Your task to perform on an android device: Search for usb-c on ebay.com, select the first entry, add it to the cart, then select checkout. Image 0: 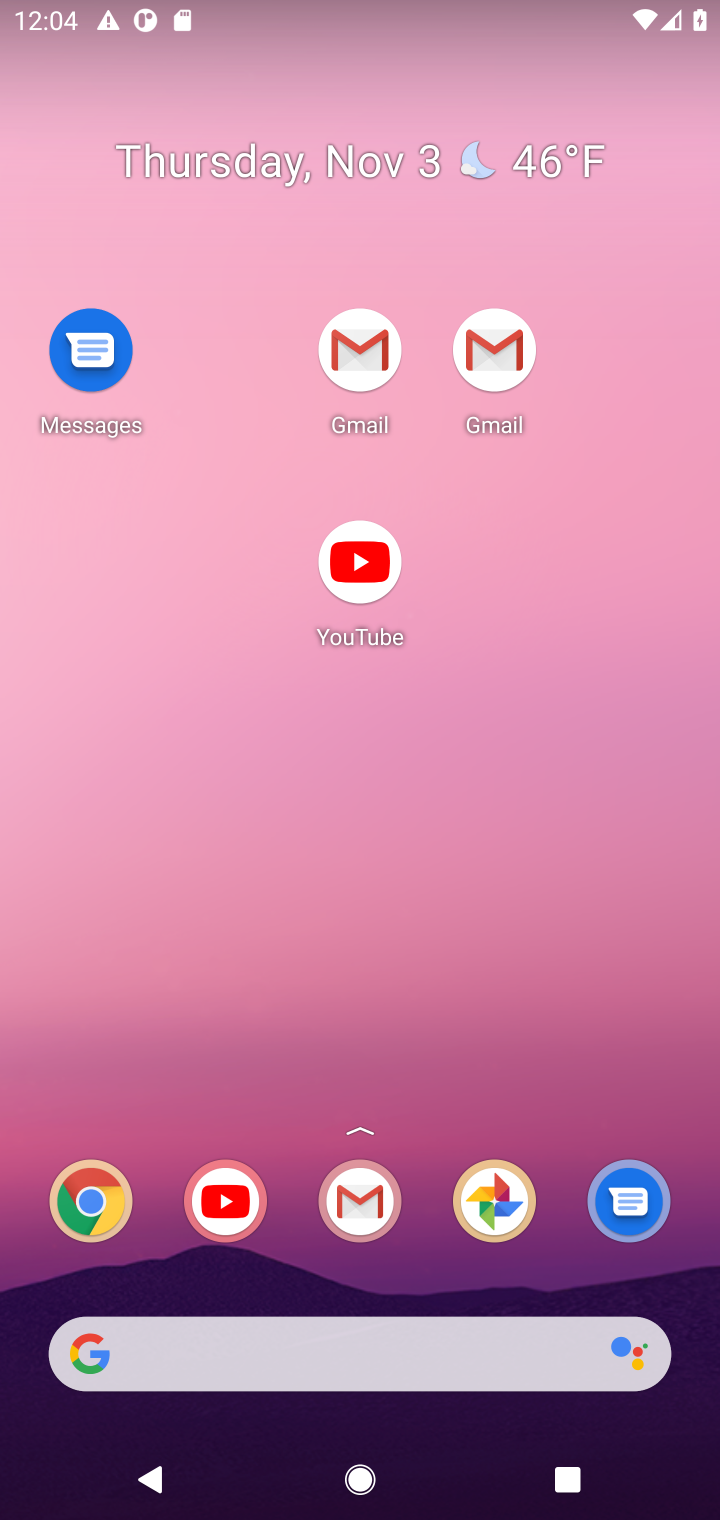
Step 0: drag from (402, 1271) to (532, 479)
Your task to perform on an android device: Search for usb-c on ebay.com, select the first entry, add it to the cart, then select checkout. Image 1: 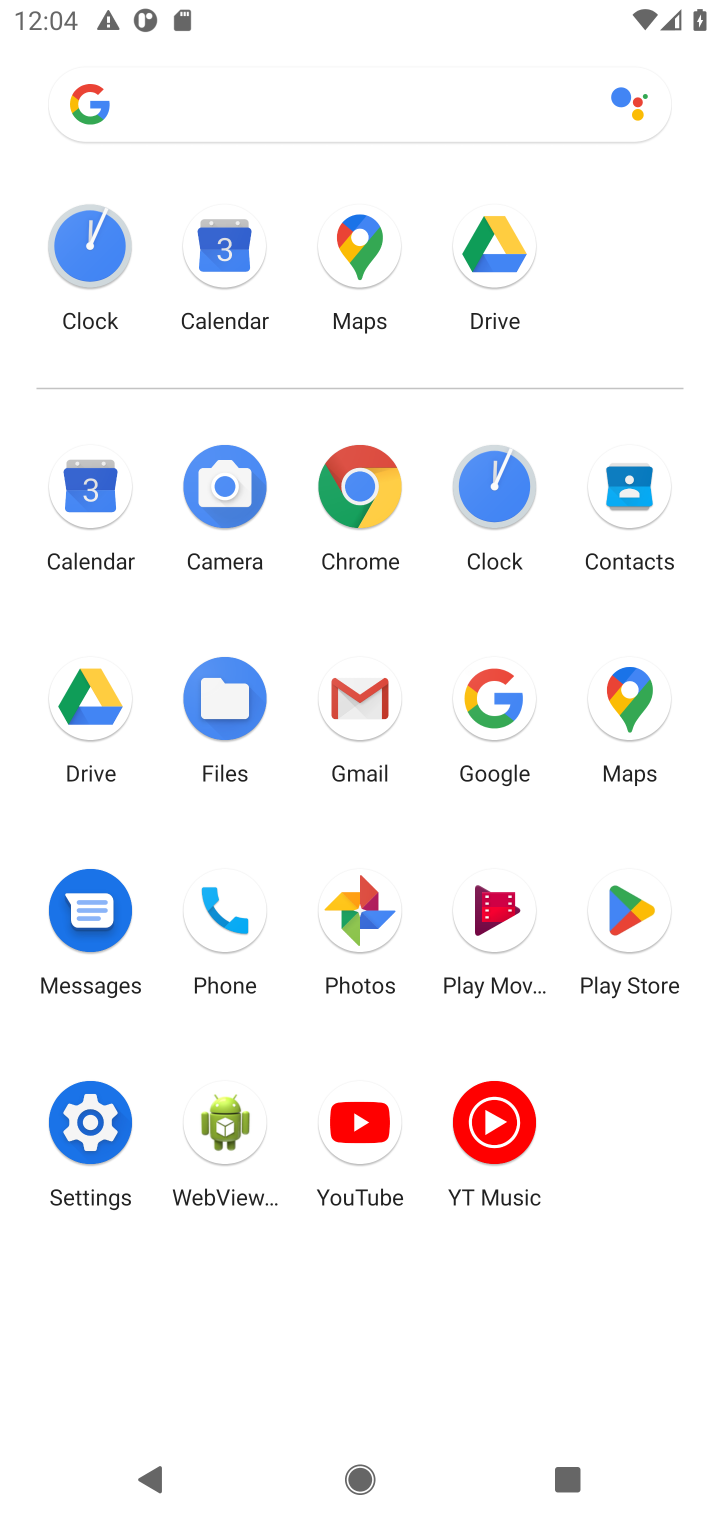
Step 1: click (365, 491)
Your task to perform on an android device: Search for usb-c on ebay.com, select the first entry, add it to the cart, then select checkout. Image 2: 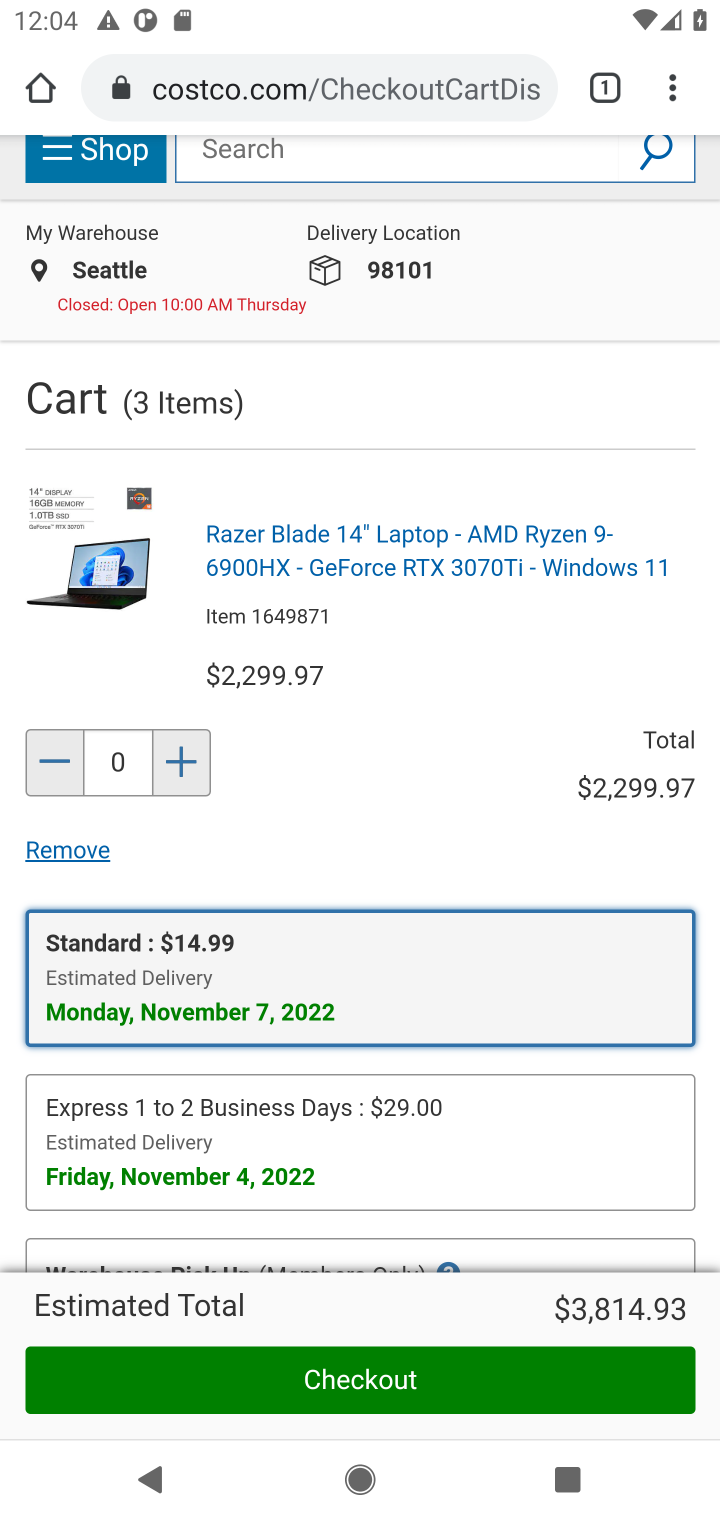
Step 2: click (430, 95)
Your task to perform on an android device: Search for usb-c on ebay.com, select the first entry, add it to the cart, then select checkout. Image 3: 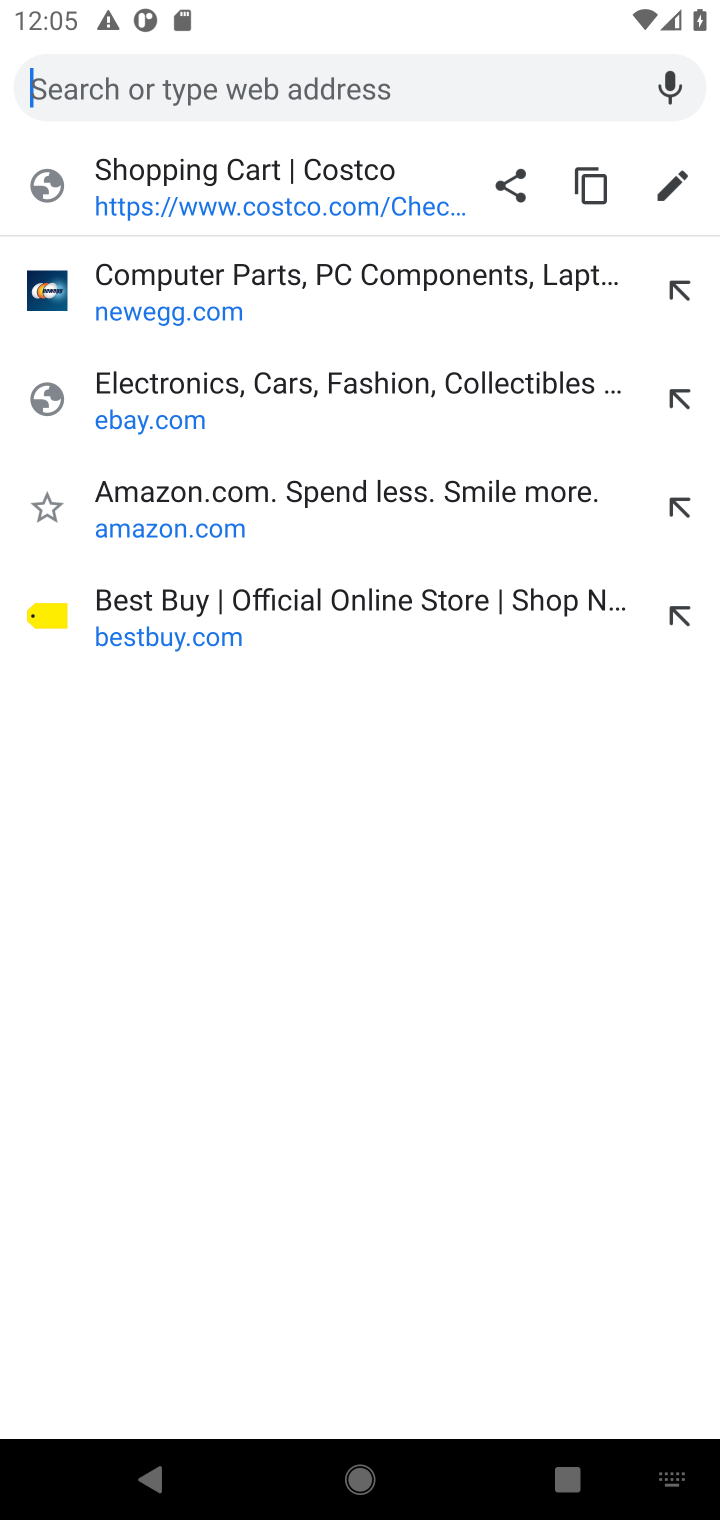
Step 3: type "ebay.com"
Your task to perform on an android device: Search for usb-c on ebay.com, select the first entry, add it to the cart, then select checkout. Image 4: 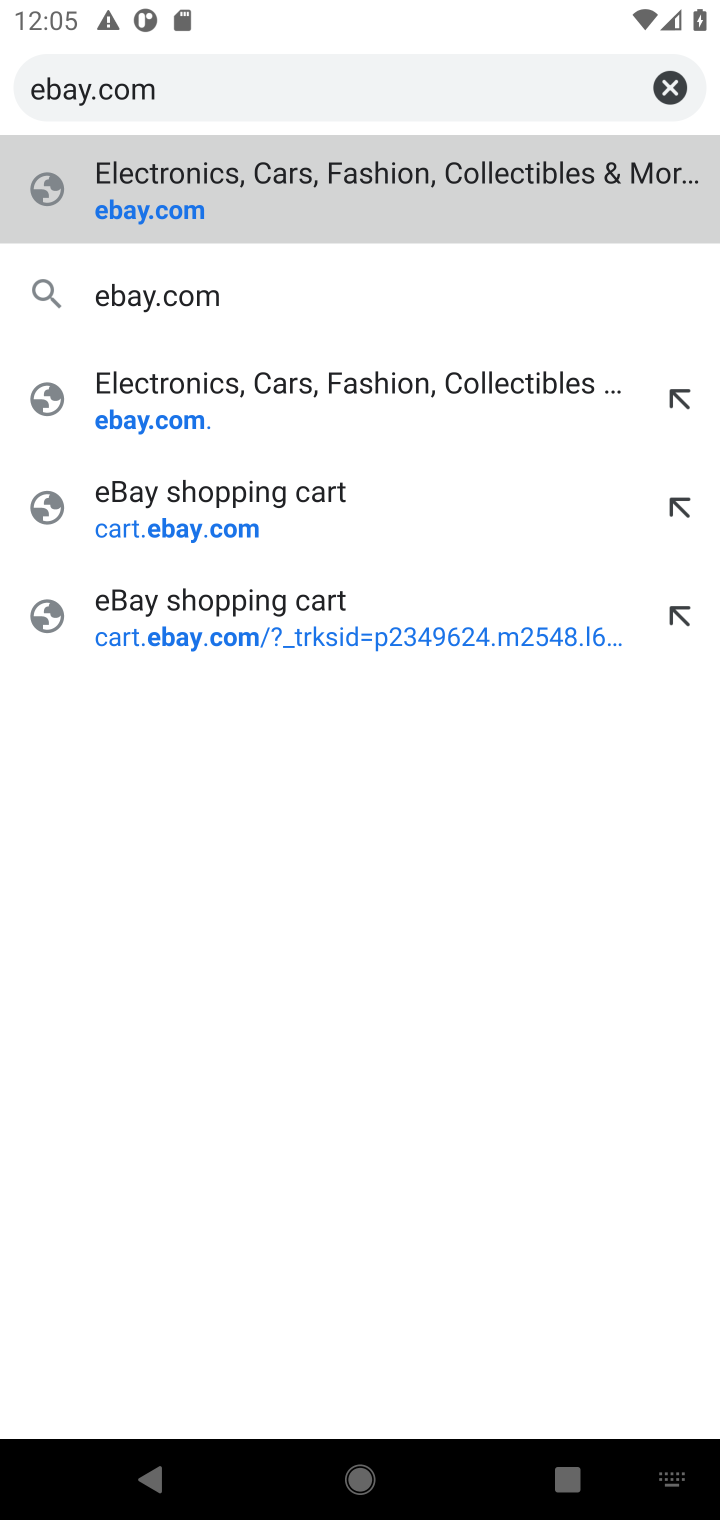
Step 4: press enter
Your task to perform on an android device: Search for usb-c on ebay.com, select the first entry, add it to the cart, then select checkout. Image 5: 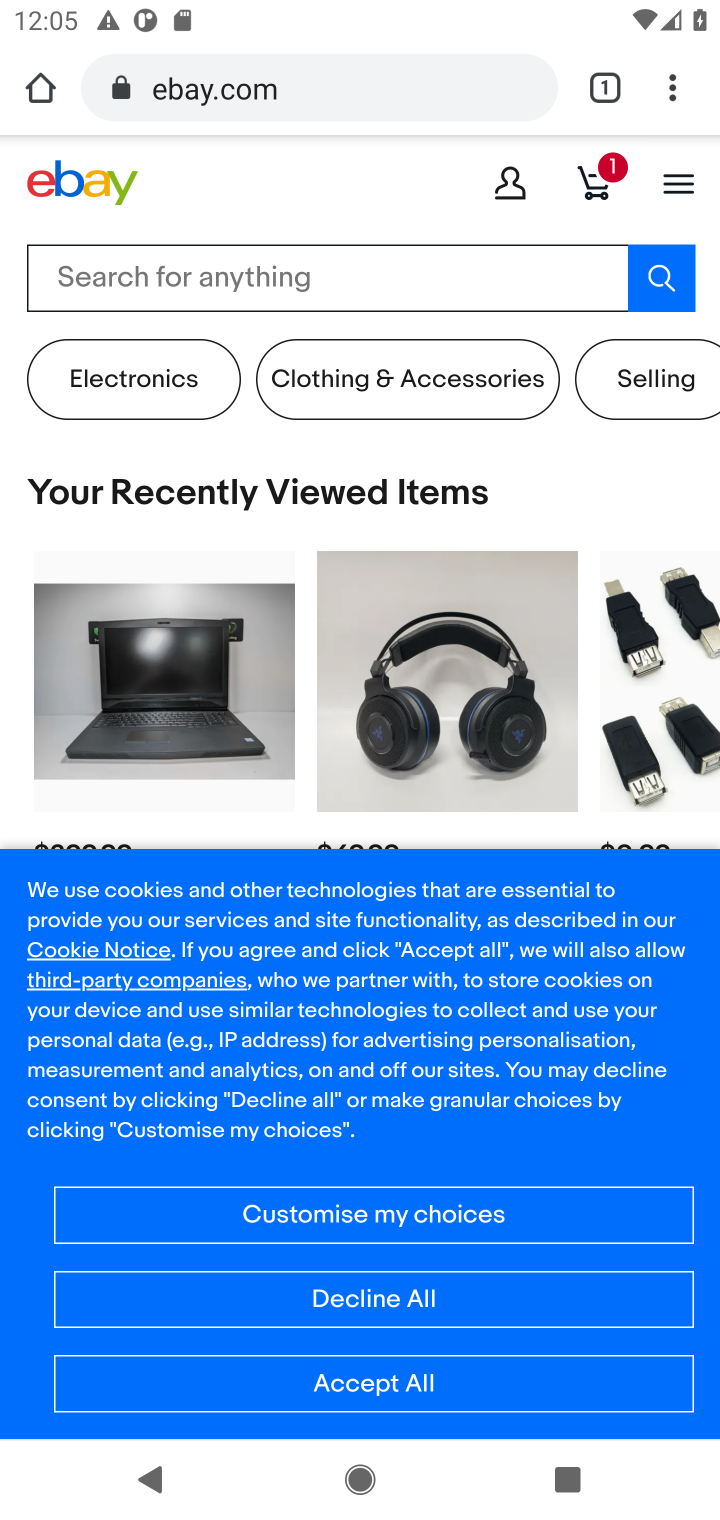
Step 5: click (445, 271)
Your task to perform on an android device: Search for usb-c on ebay.com, select the first entry, add it to the cart, then select checkout. Image 6: 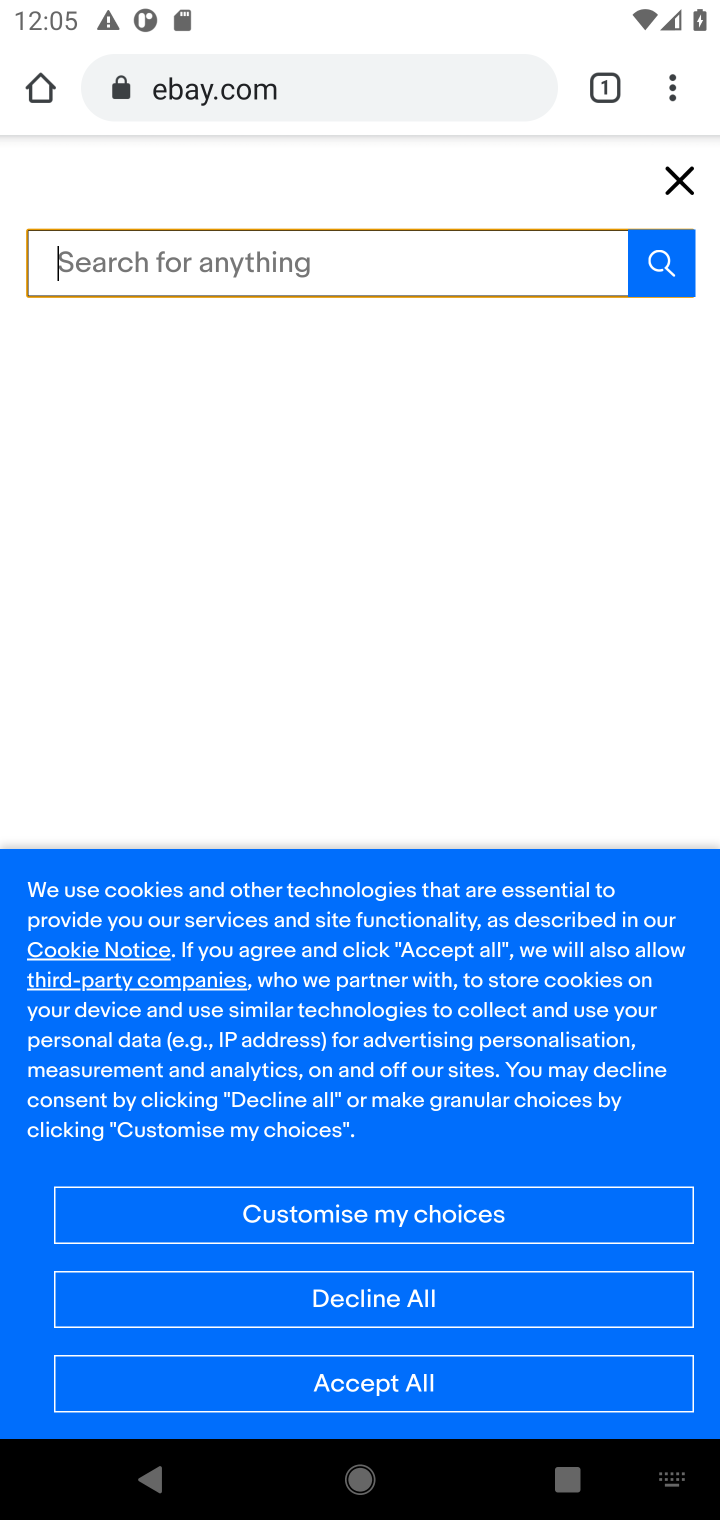
Step 6: type "usb-c"
Your task to perform on an android device: Search for usb-c on ebay.com, select the first entry, add it to the cart, then select checkout. Image 7: 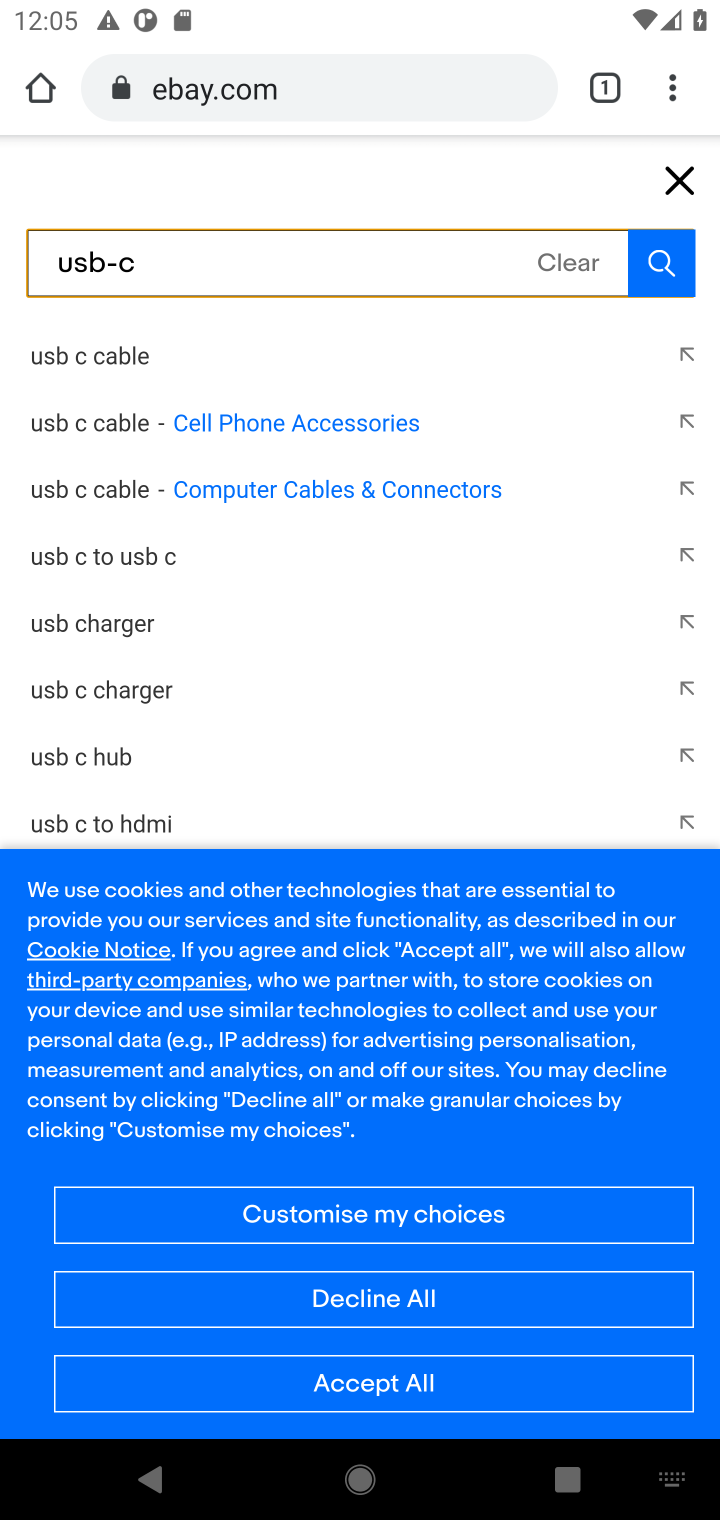
Step 7: press enter
Your task to perform on an android device: Search for usb-c on ebay.com, select the first entry, add it to the cart, then select checkout. Image 8: 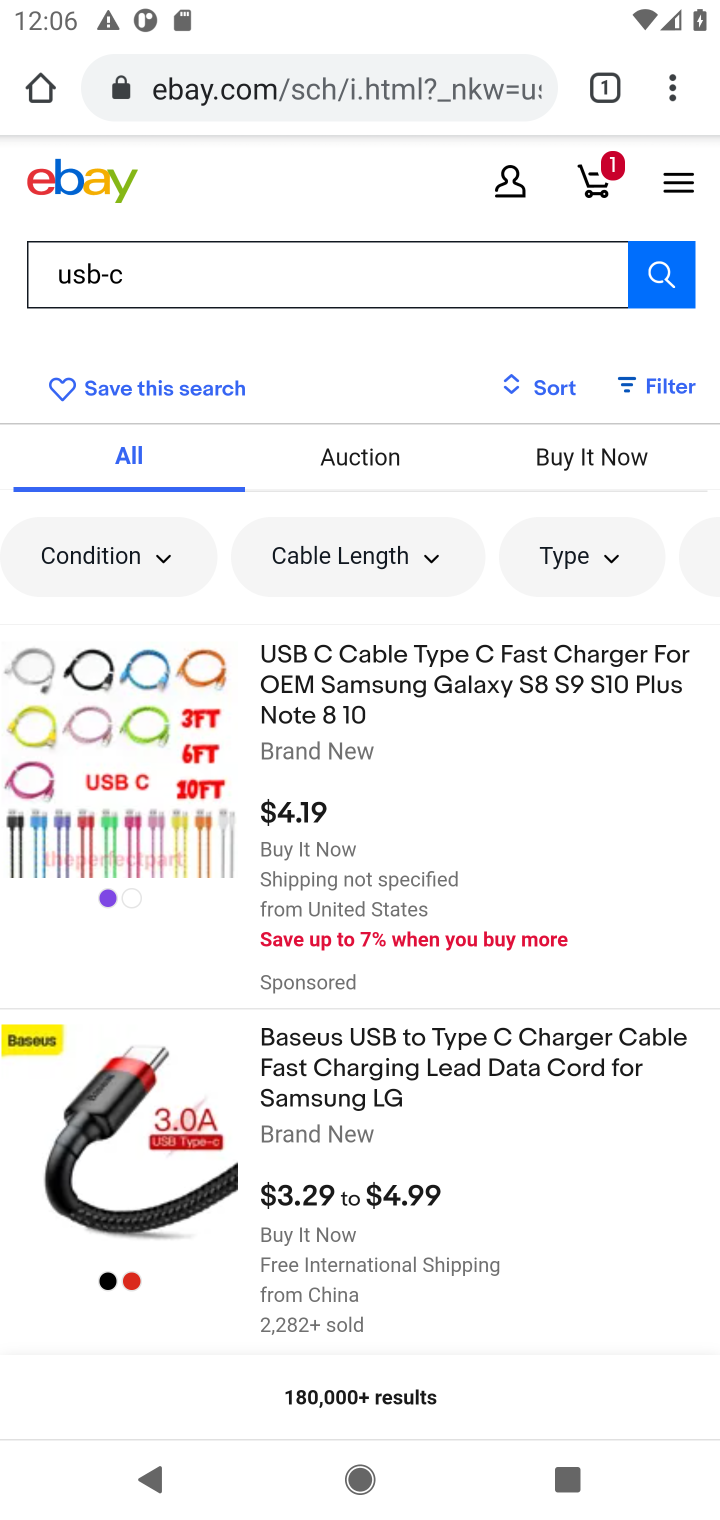
Step 8: click (388, 686)
Your task to perform on an android device: Search for usb-c on ebay.com, select the first entry, add it to the cart, then select checkout. Image 9: 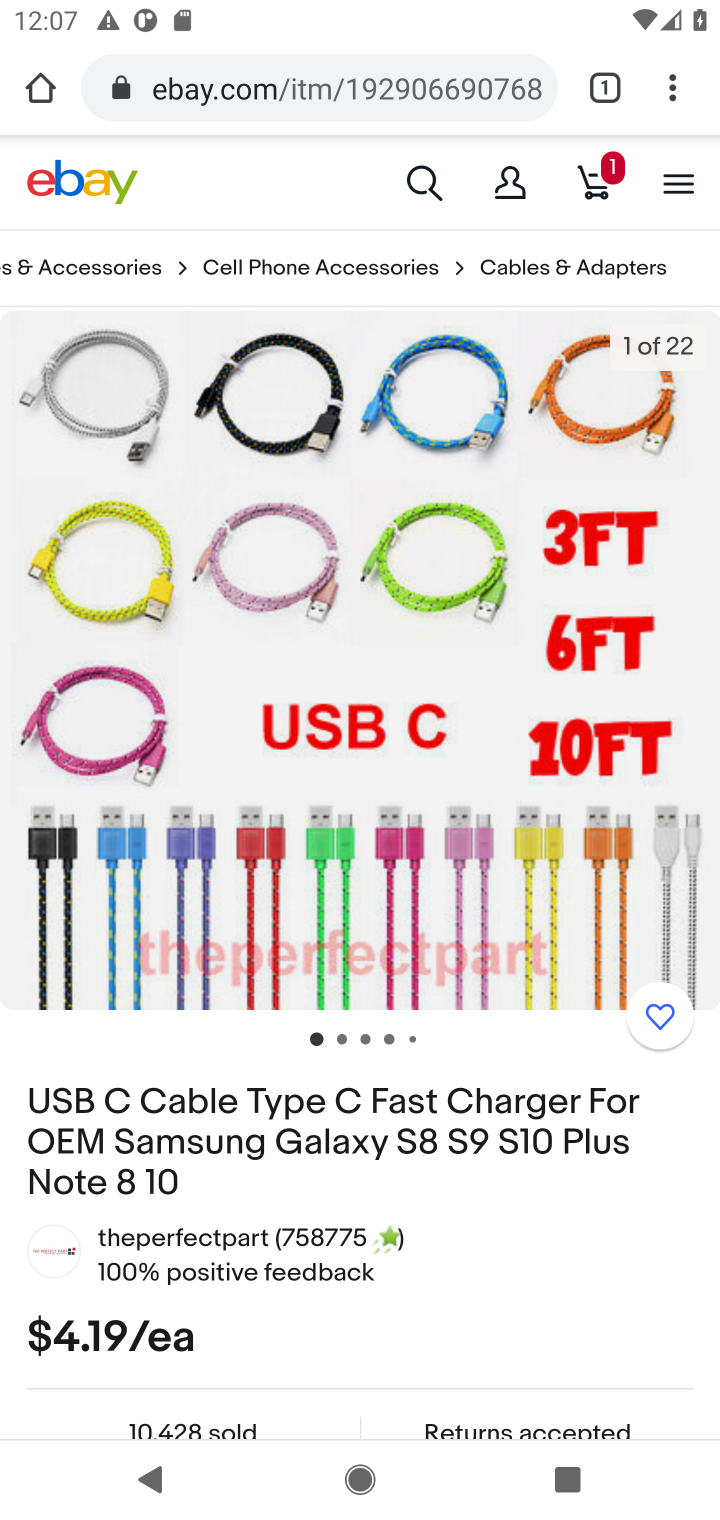
Step 9: drag from (267, 1156) to (422, 296)
Your task to perform on an android device: Search for usb-c on ebay.com, select the first entry, add it to the cart, then select checkout. Image 10: 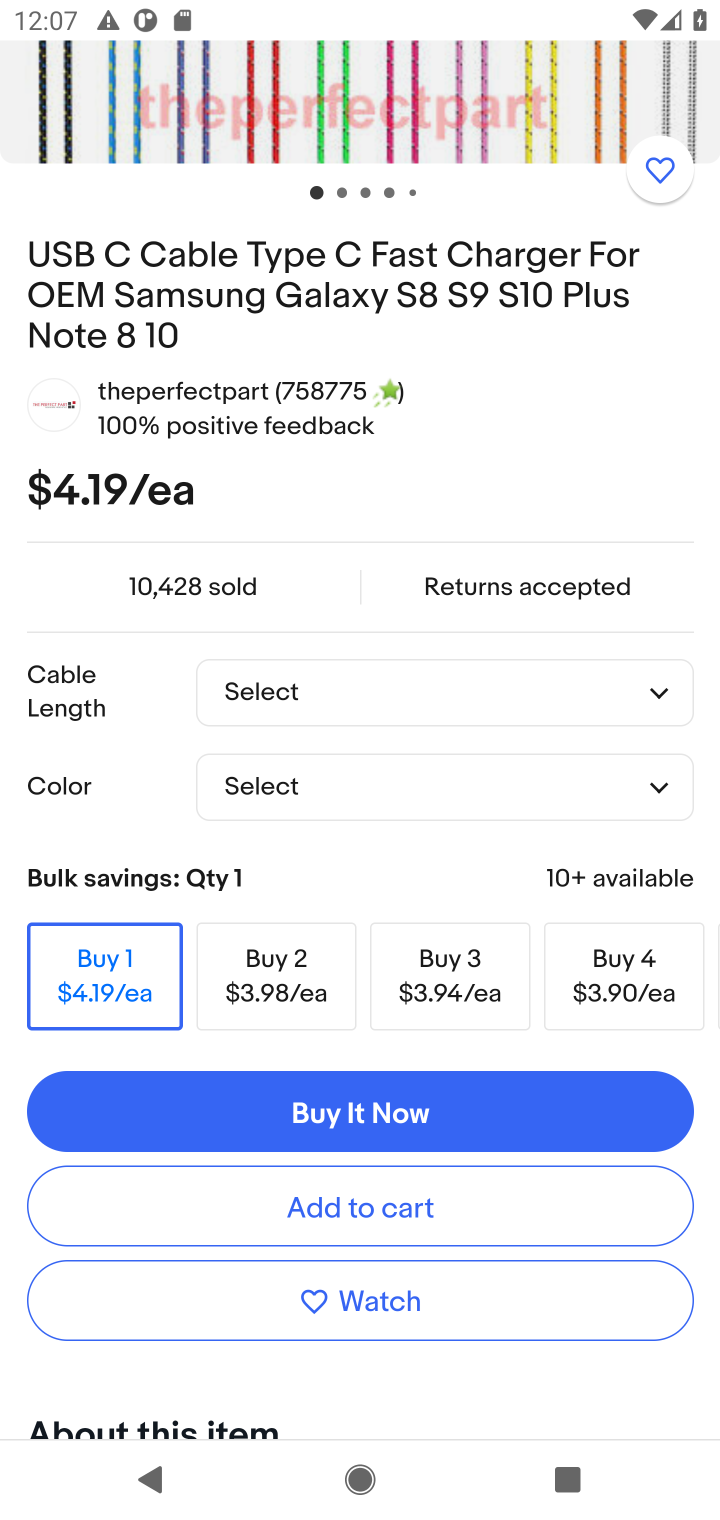
Step 10: click (546, 1220)
Your task to perform on an android device: Search for usb-c on ebay.com, select the first entry, add it to the cart, then select checkout. Image 11: 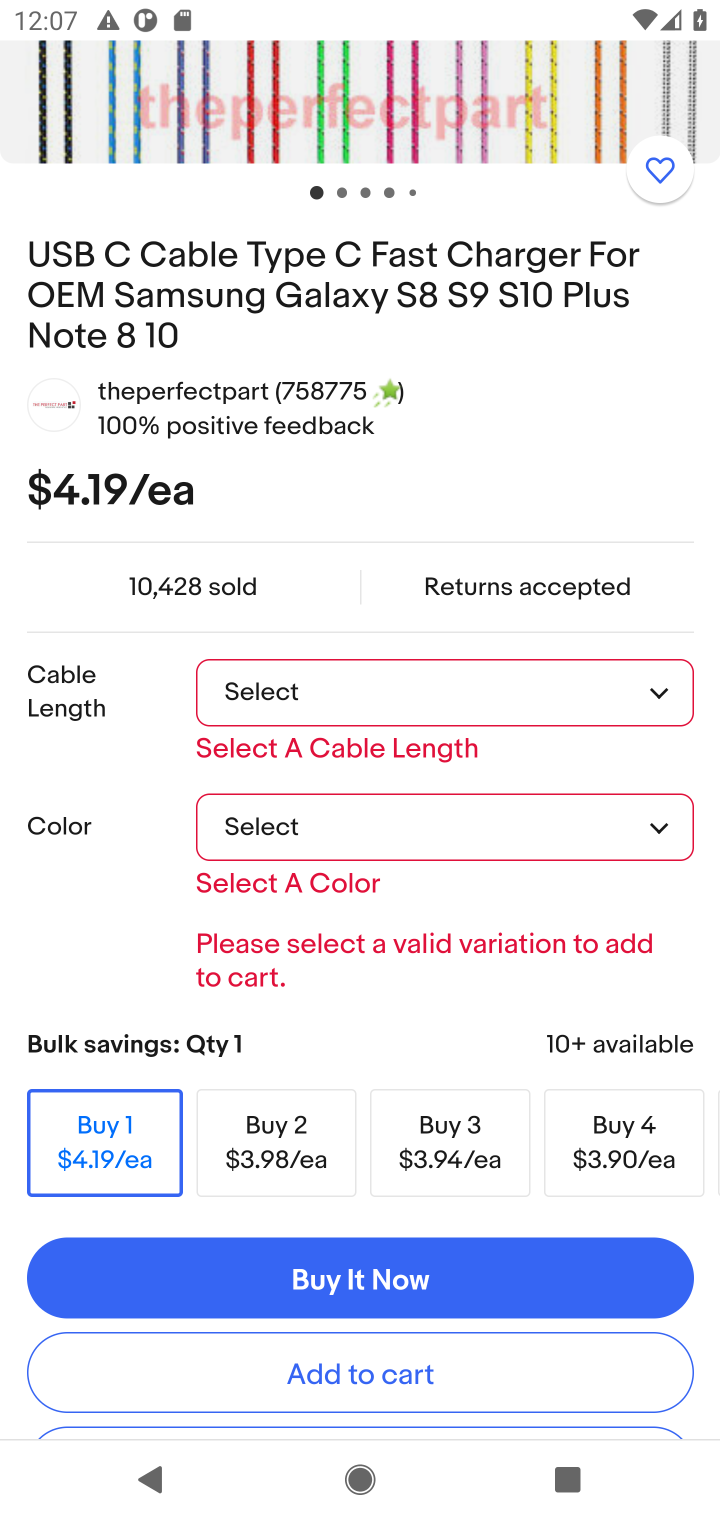
Step 11: click (350, 689)
Your task to perform on an android device: Search for usb-c on ebay.com, select the first entry, add it to the cart, then select checkout. Image 12: 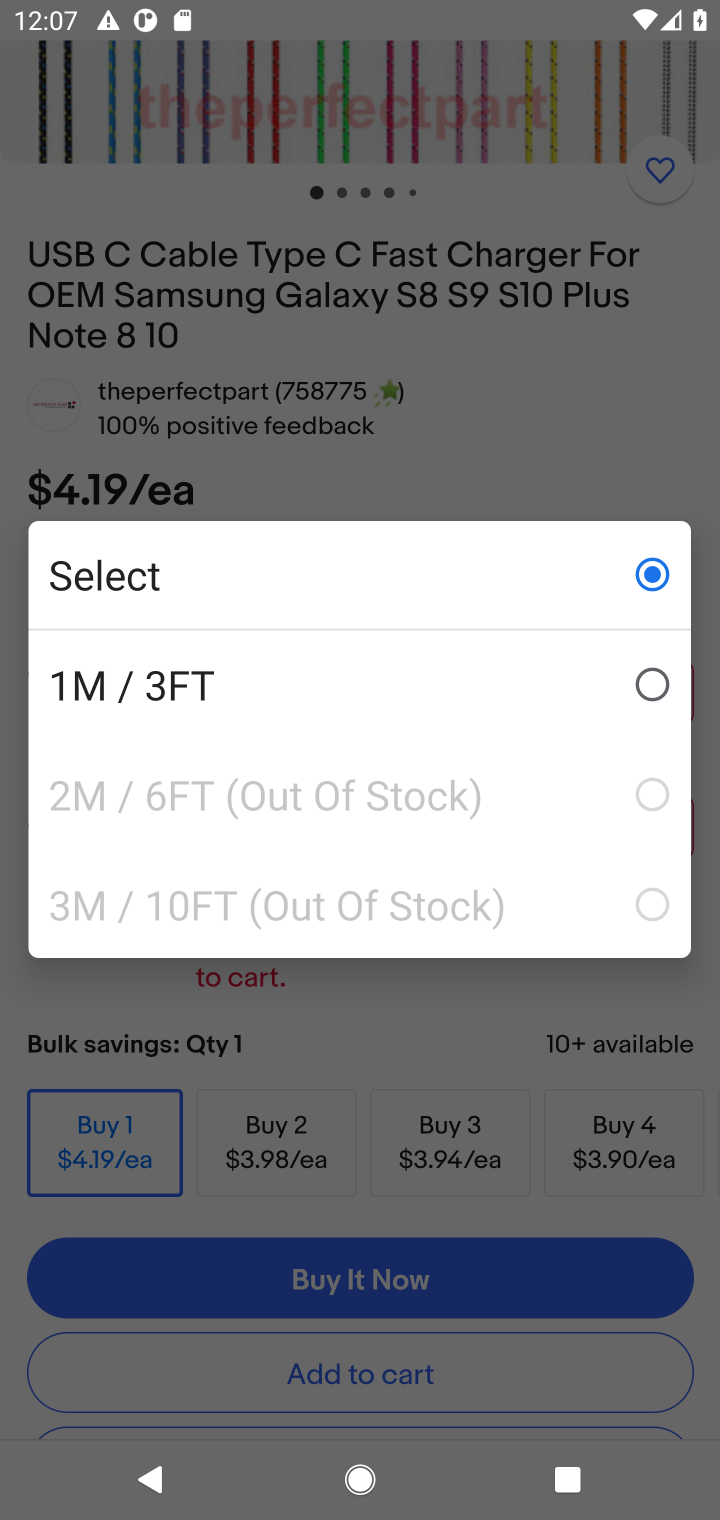
Step 12: click (350, 689)
Your task to perform on an android device: Search for usb-c on ebay.com, select the first entry, add it to the cart, then select checkout. Image 13: 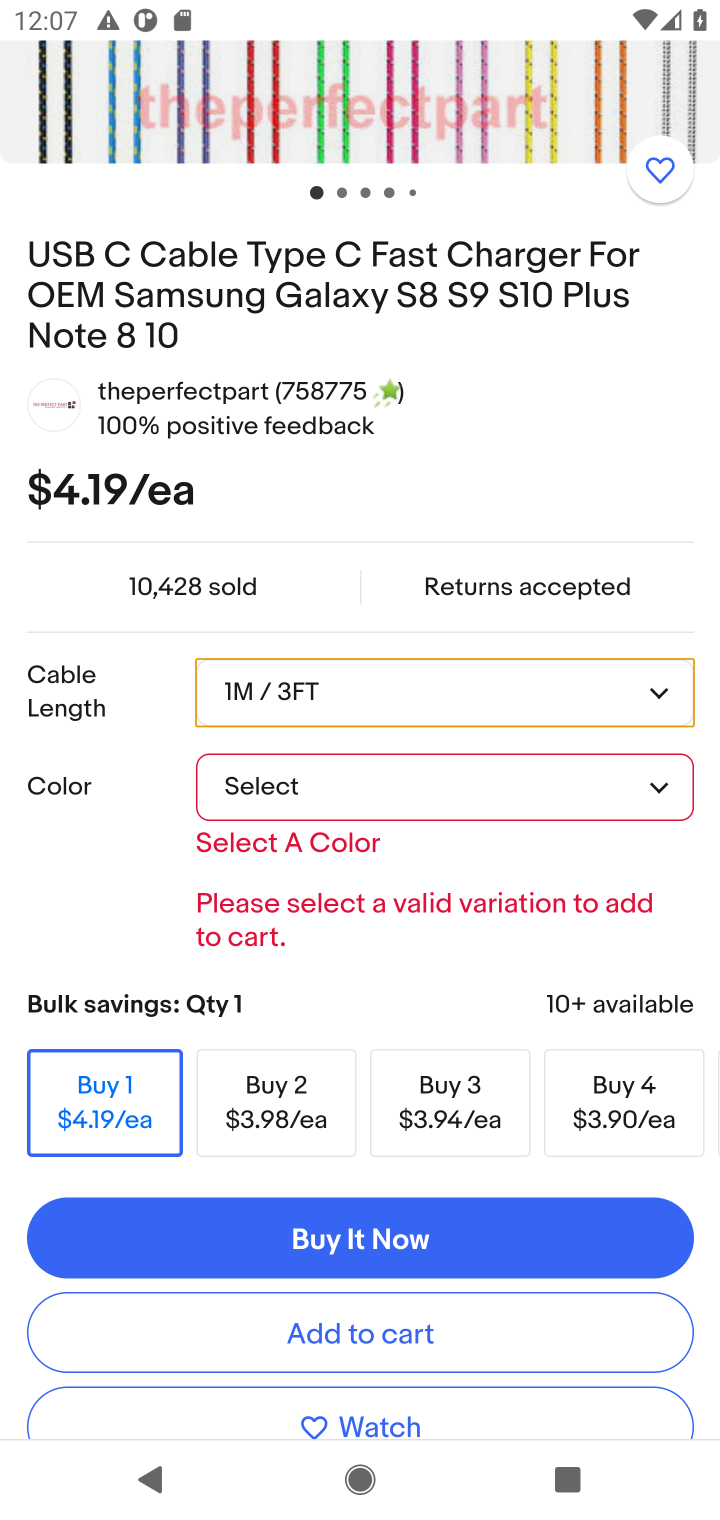
Step 13: click (413, 811)
Your task to perform on an android device: Search for usb-c on ebay.com, select the first entry, add it to the cart, then select checkout. Image 14: 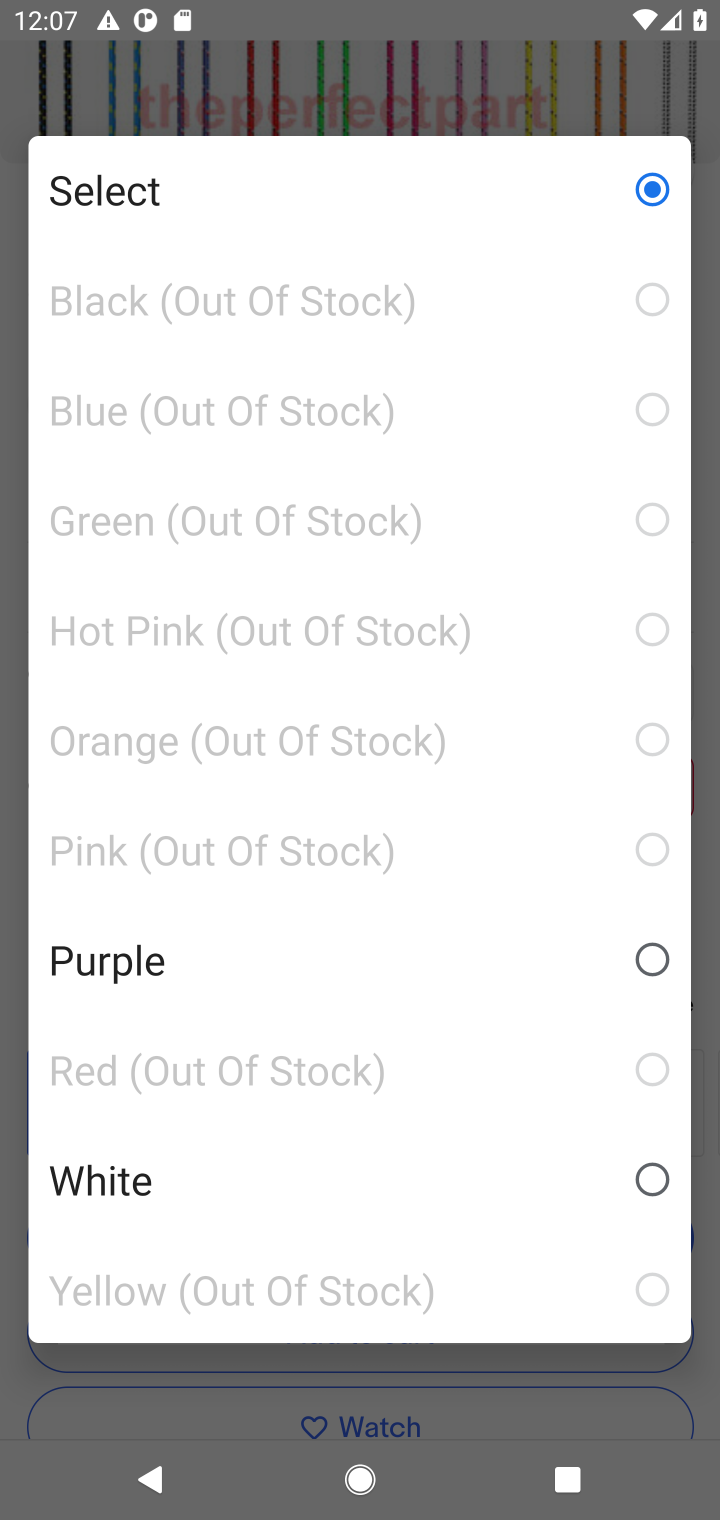
Step 14: click (381, 917)
Your task to perform on an android device: Search for usb-c on ebay.com, select the first entry, add it to the cart, then select checkout. Image 15: 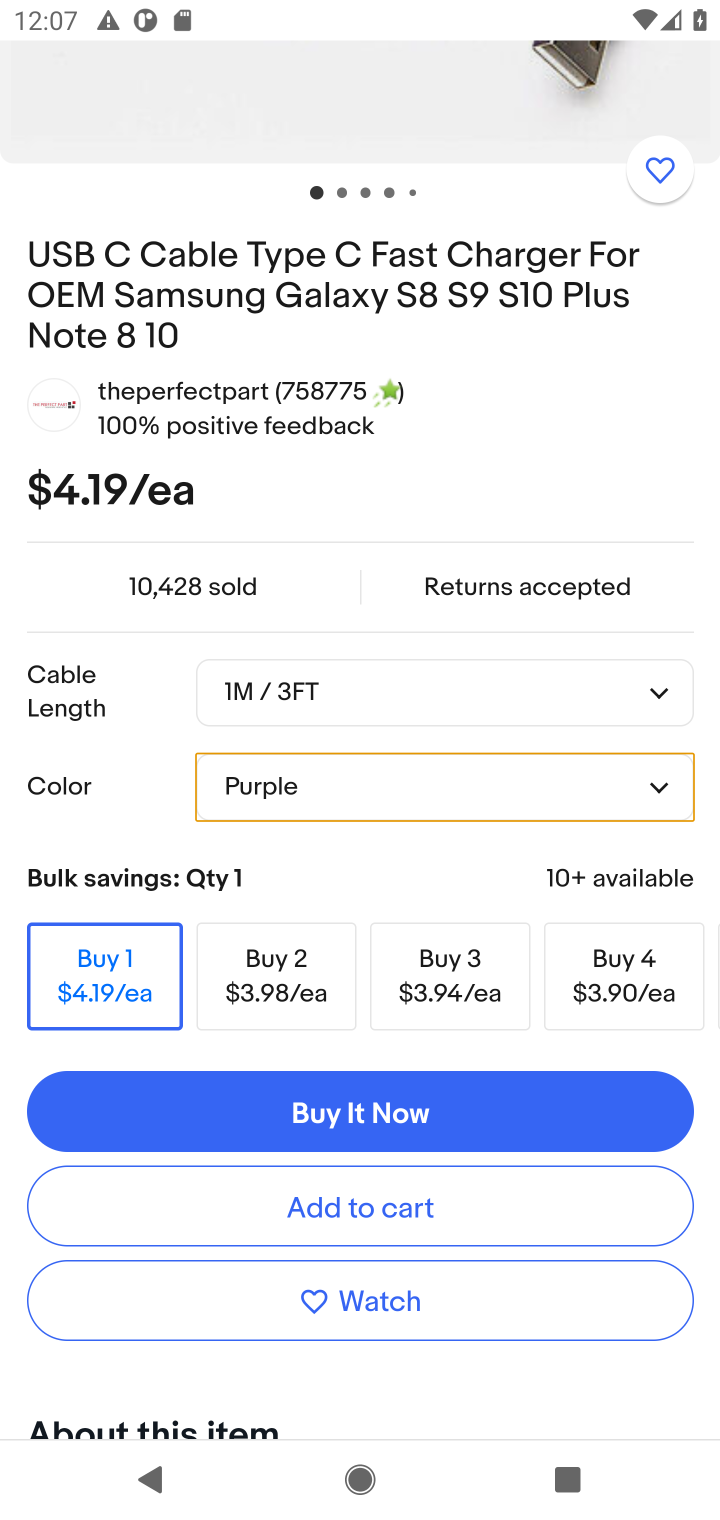
Step 15: click (407, 1195)
Your task to perform on an android device: Search for usb-c on ebay.com, select the first entry, add it to the cart, then select checkout. Image 16: 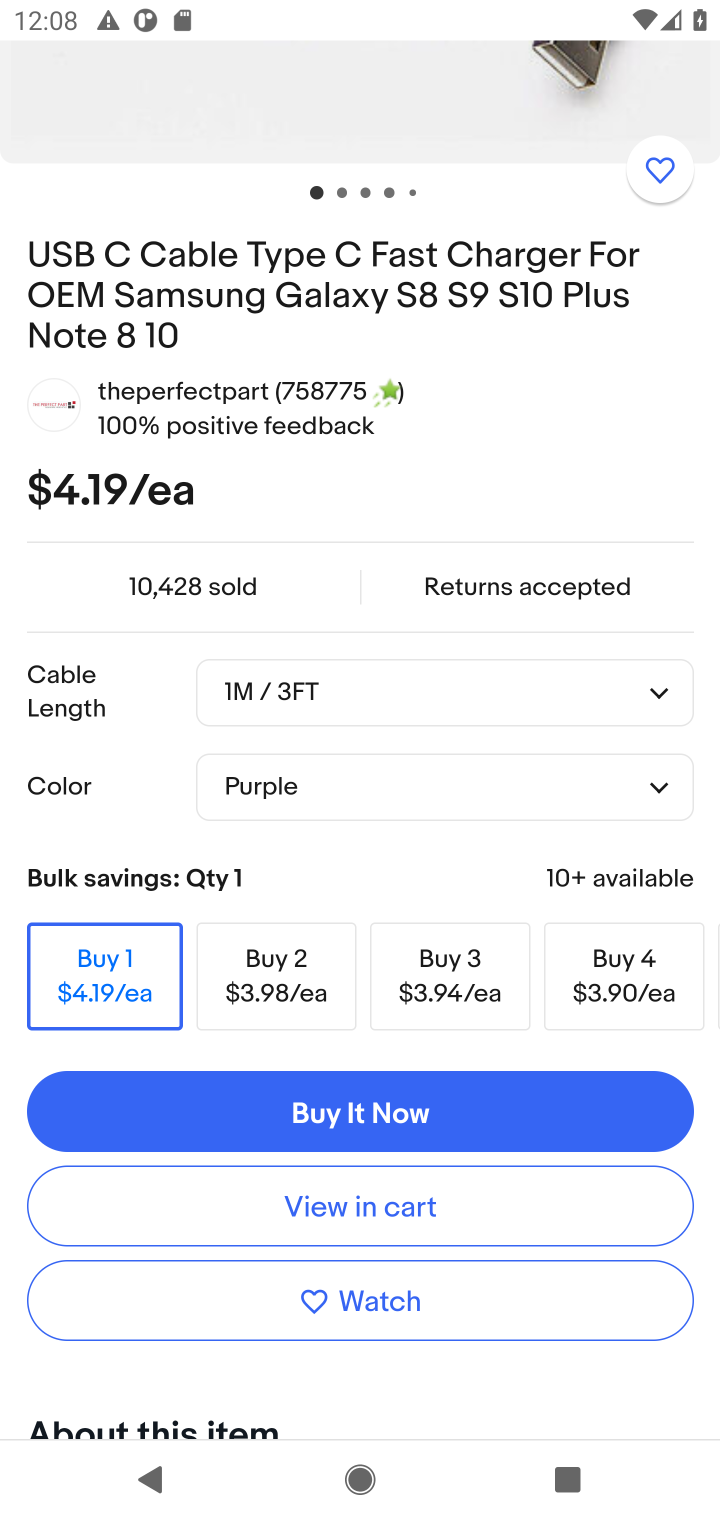
Step 16: click (635, 1210)
Your task to perform on an android device: Search for usb-c on ebay.com, select the first entry, add it to the cart, then select checkout. Image 17: 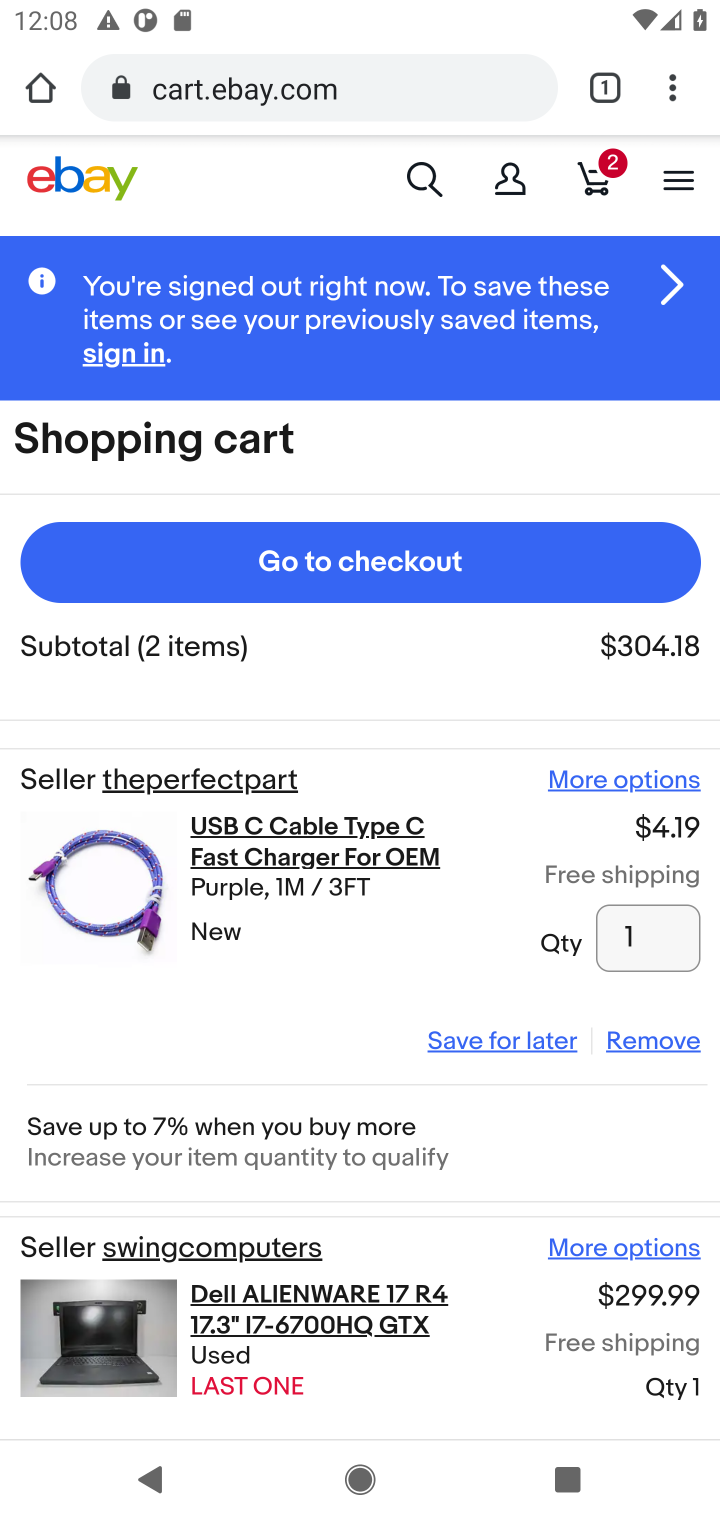
Step 17: click (459, 569)
Your task to perform on an android device: Search for usb-c on ebay.com, select the first entry, add it to the cart, then select checkout. Image 18: 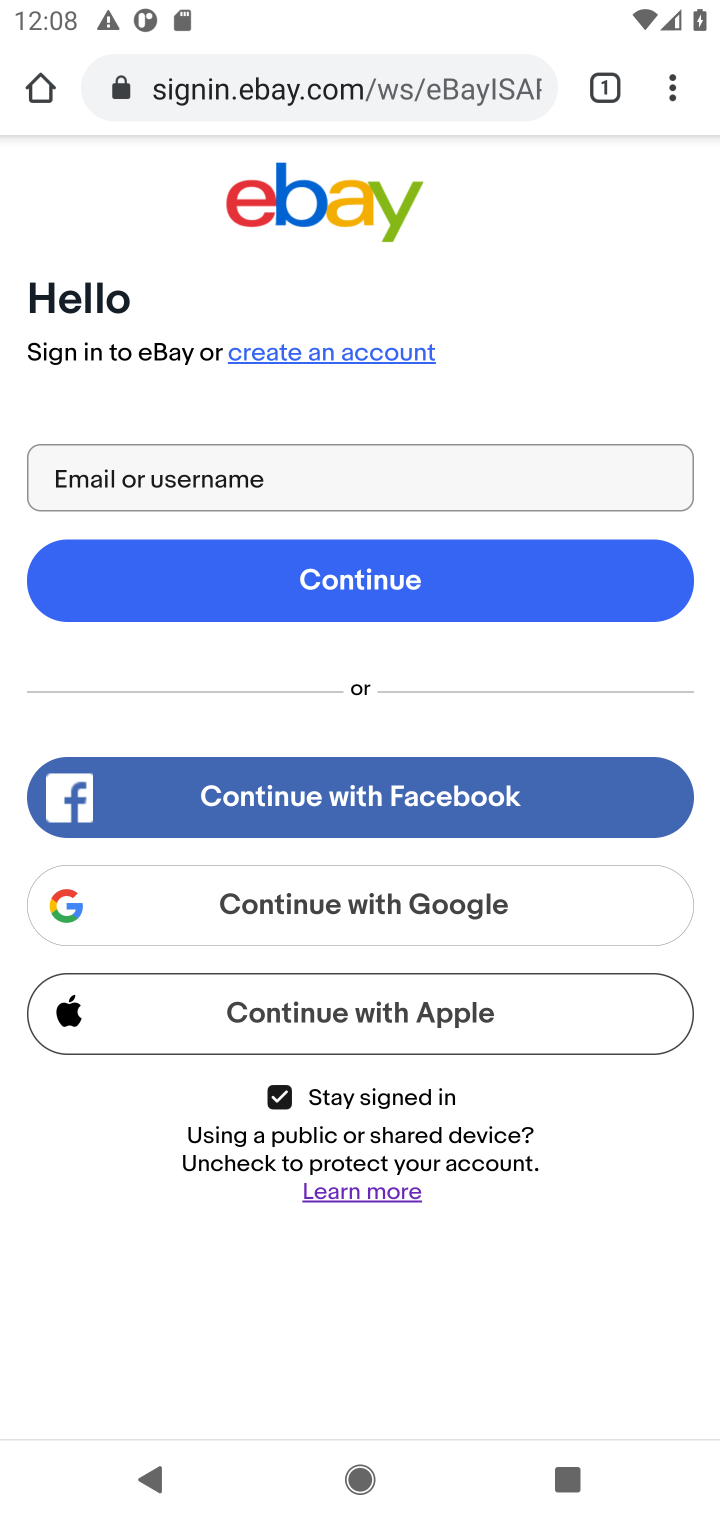
Step 18: task complete